Your task to perform on an android device: Open display settings Image 0: 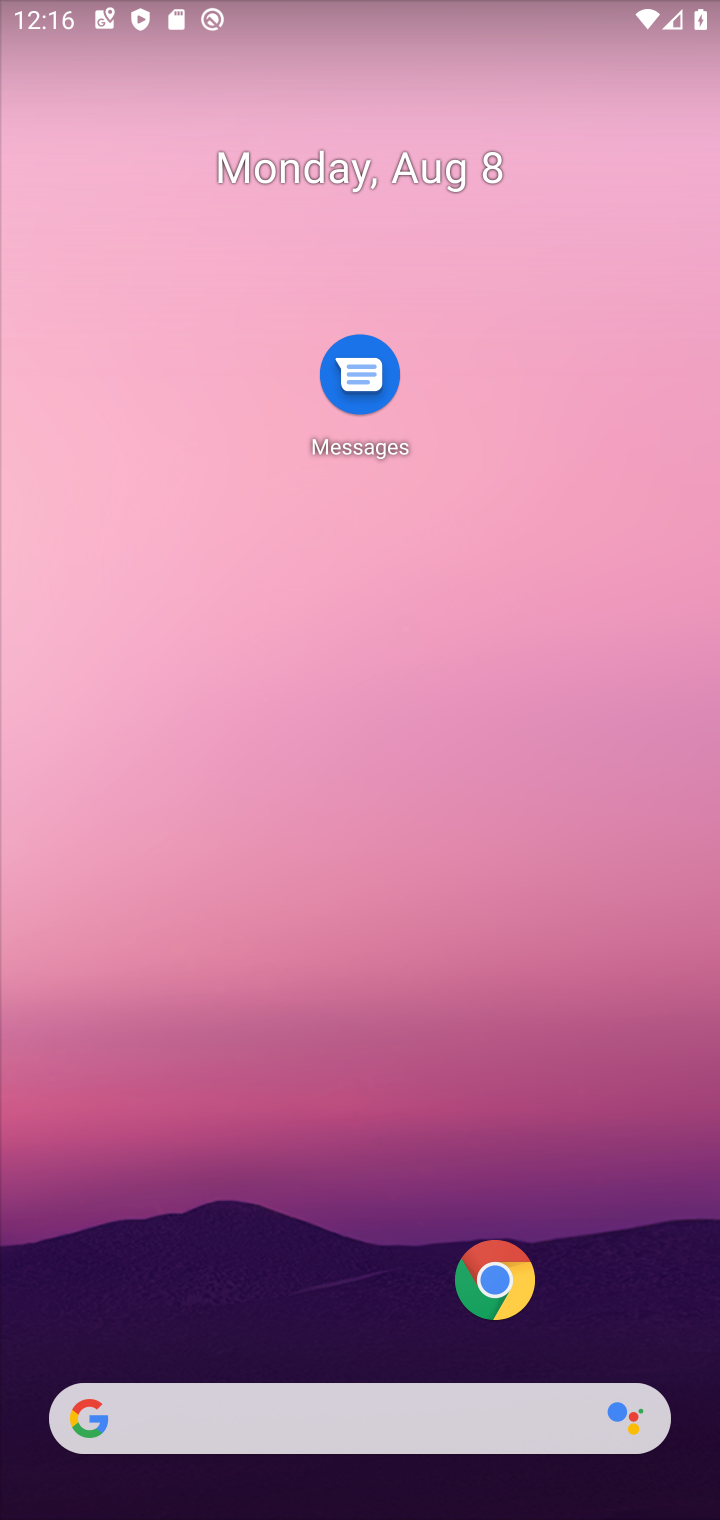
Step 0: drag from (159, 1270) to (211, 241)
Your task to perform on an android device: Open display settings Image 1: 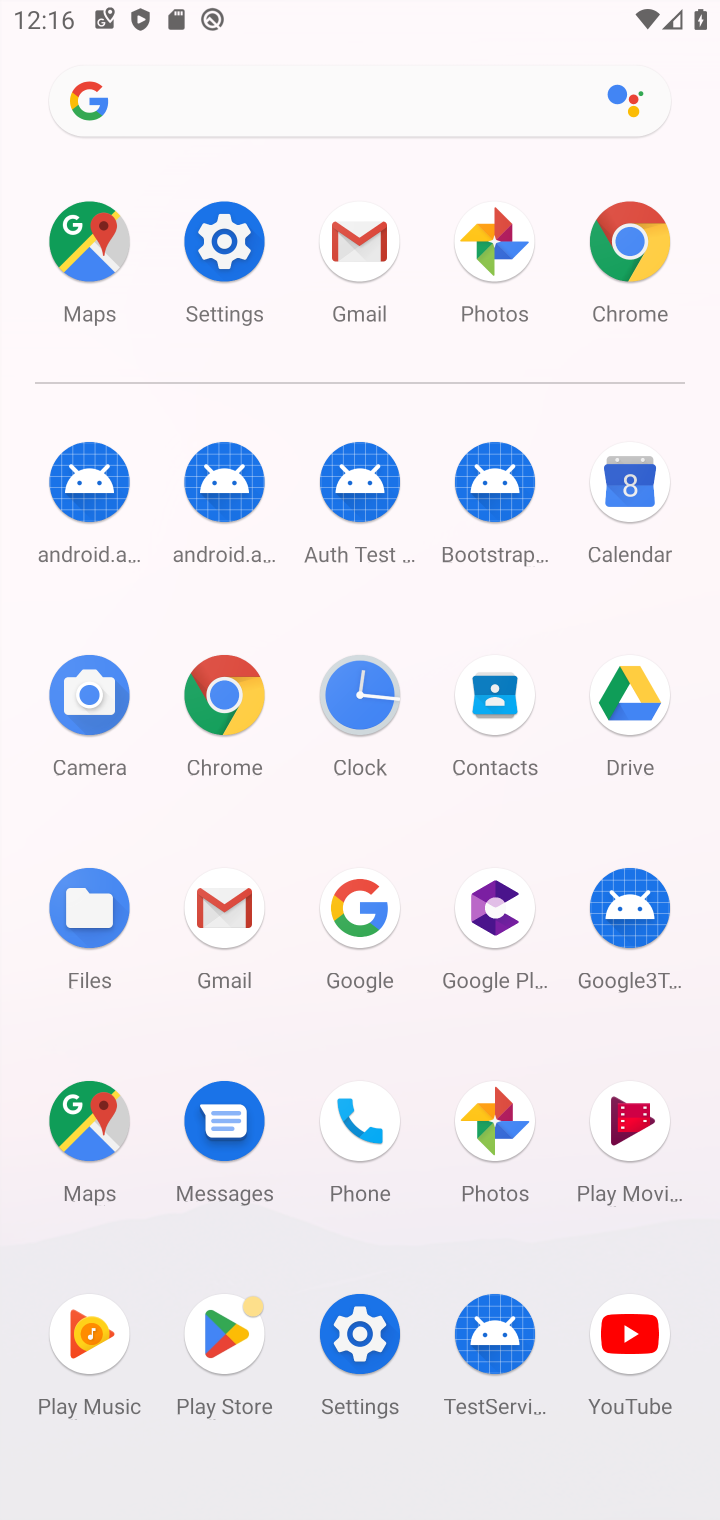
Step 1: click (216, 228)
Your task to perform on an android device: Open display settings Image 2: 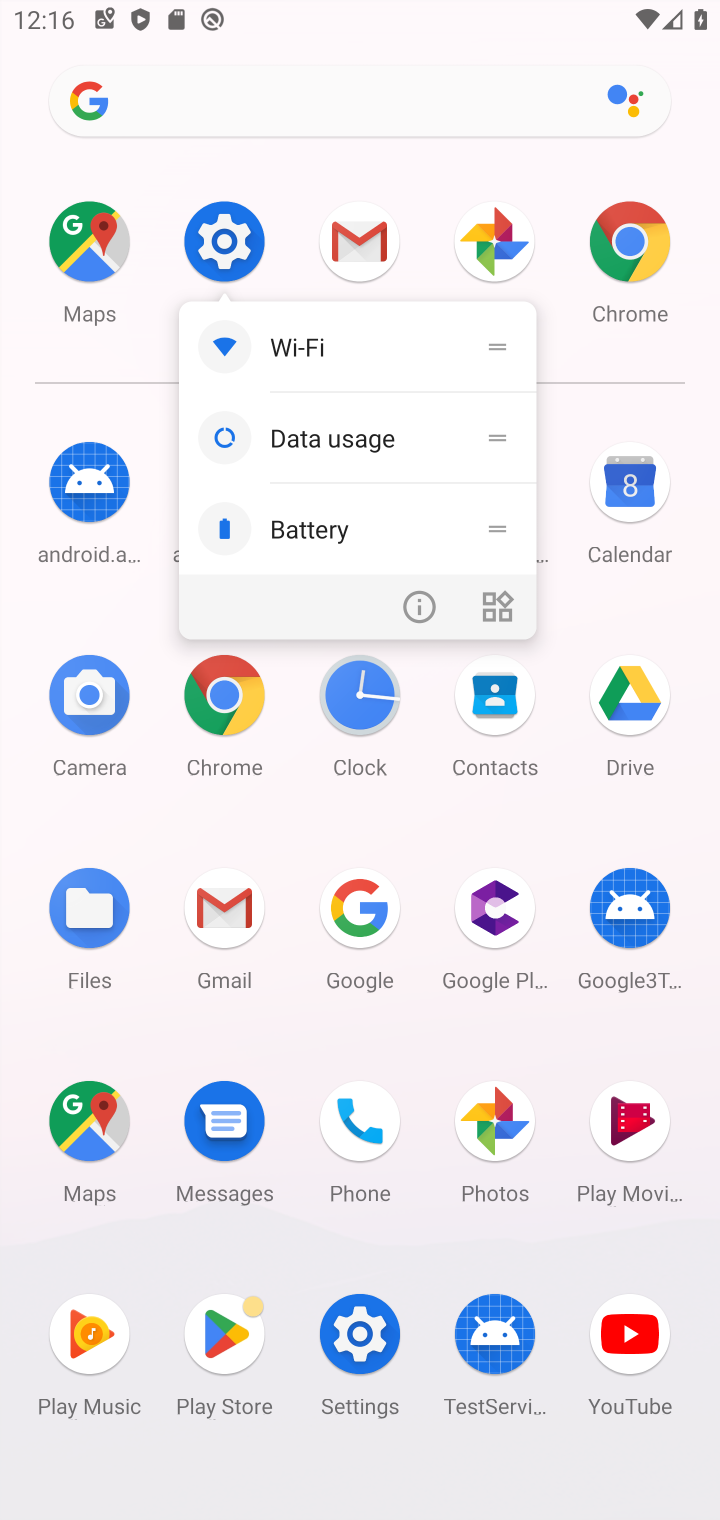
Step 2: click (221, 241)
Your task to perform on an android device: Open display settings Image 3: 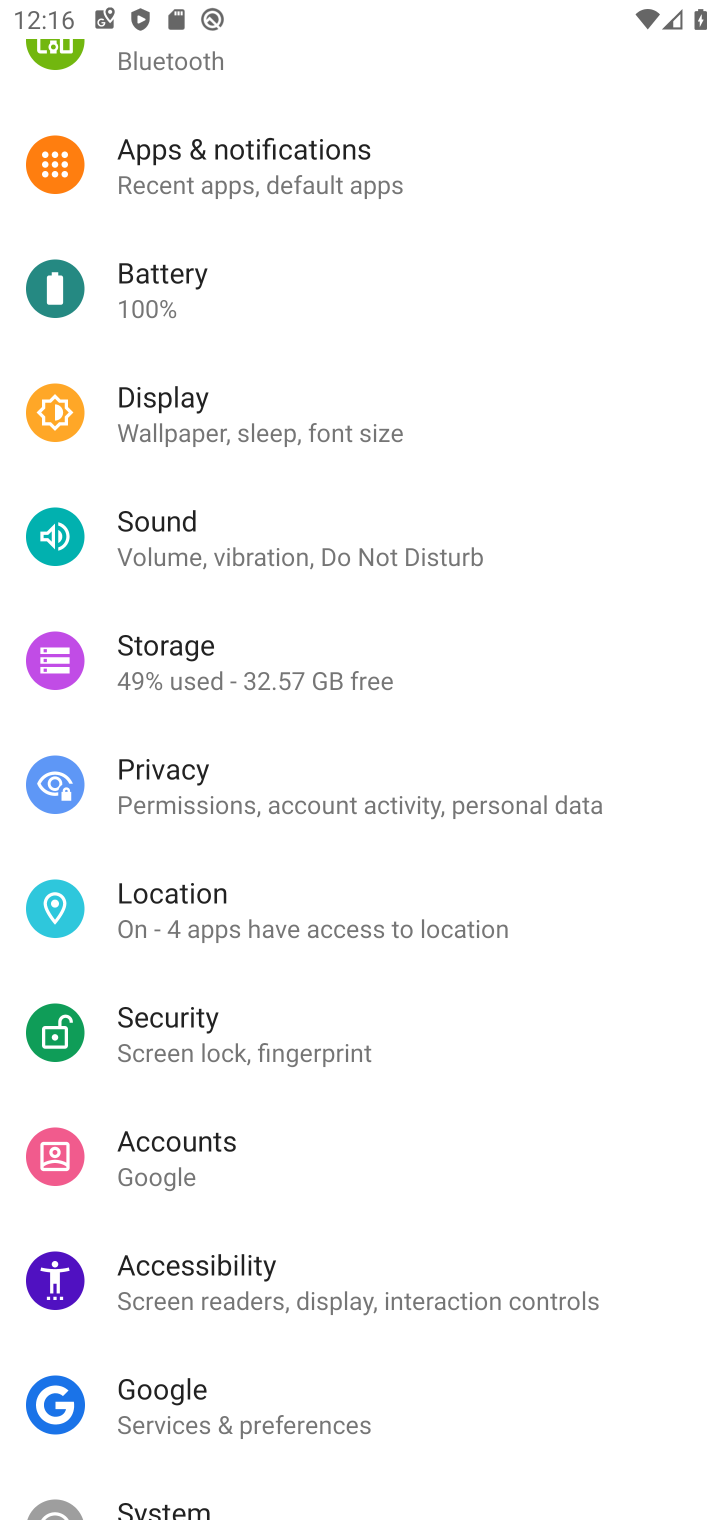
Step 3: click (165, 405)
Your task to perform on an android device: Open display settings Image 4: 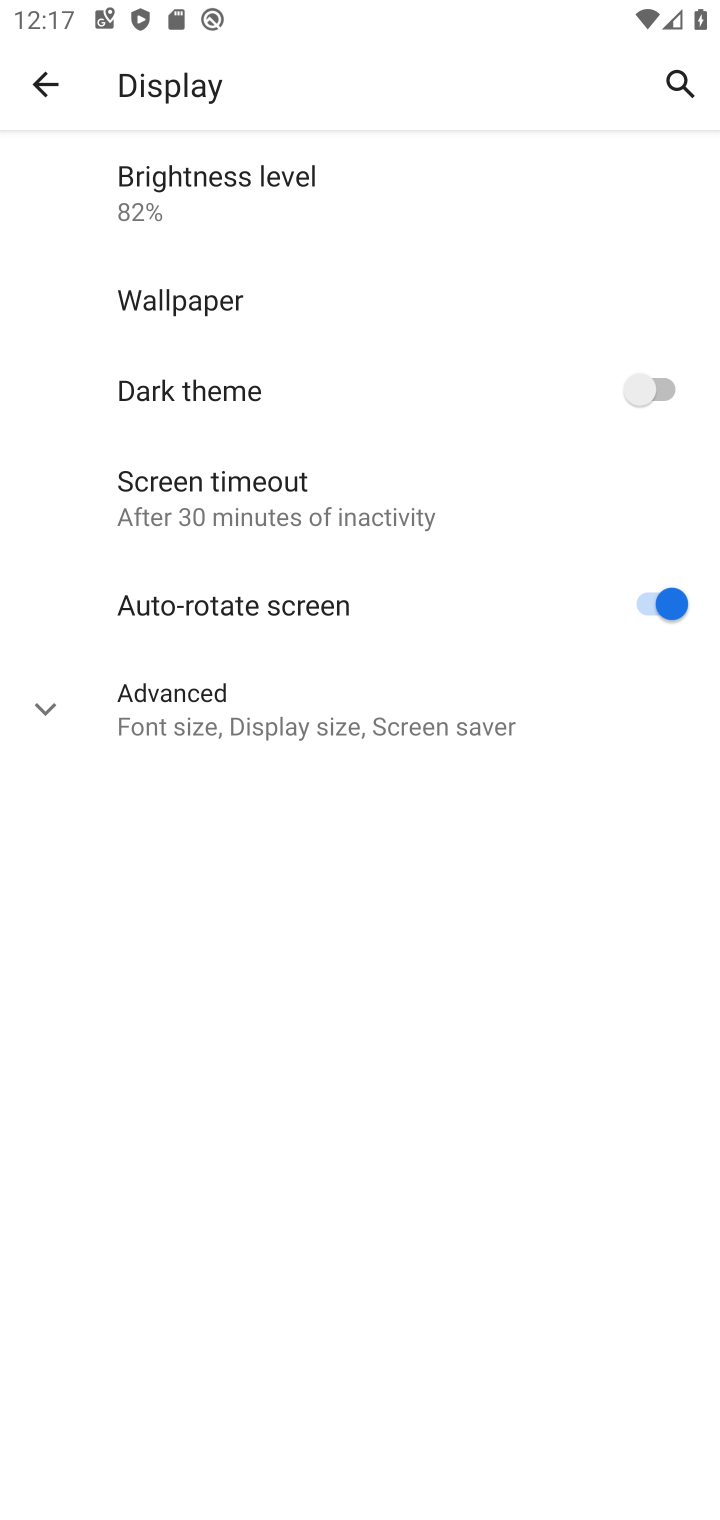
Step 4: task complete